Your task to perform on an android device: turn off sleep mode Image 0: 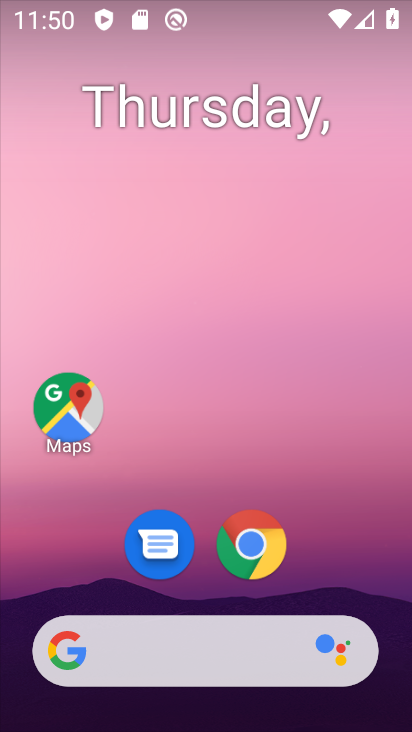
Step 0: drag from (183, 580) to (201, 16)
Your task to perform on an android device: turn off sleep mode Image 1: 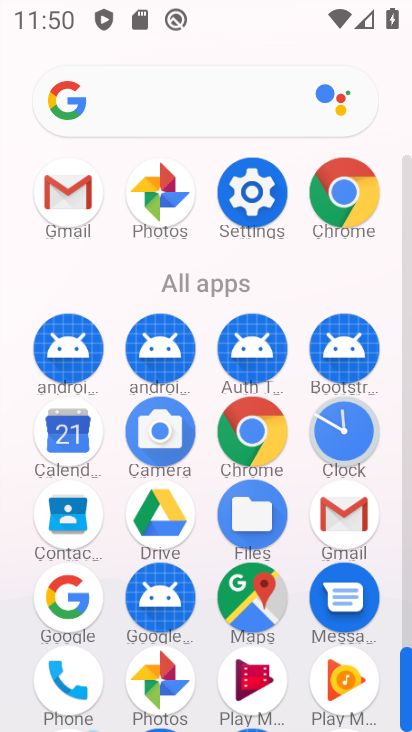
Step 1: click (249, 170)
Your task to perform on an android device: turn off sleep mode Image 2: 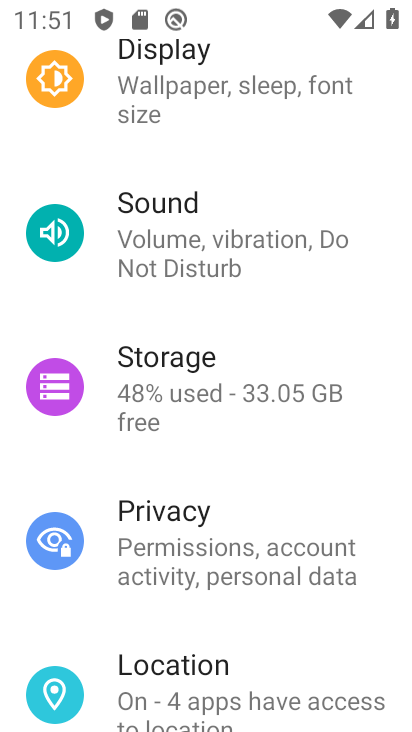
Step 2: click (164, 124)
Your task to perform on an android device: turn off sleep mode Image 3: 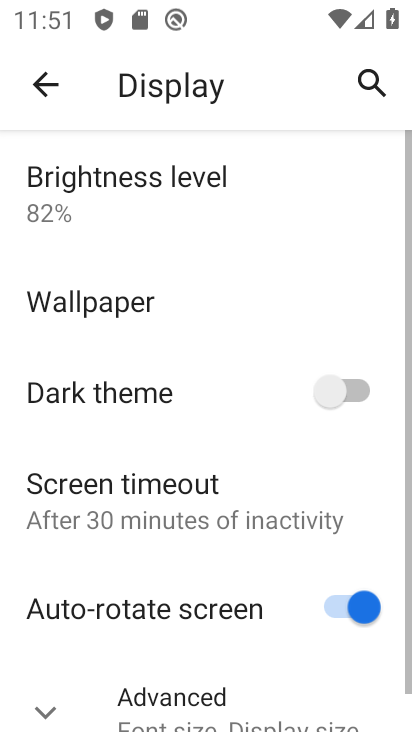
Step 3: drag from (145, 506) to (121, 146)
Your task to perform on an android device: turn off sleep mode Image 4: 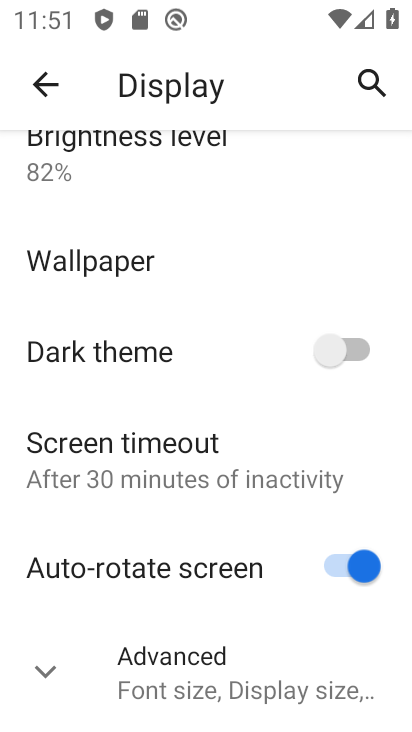
Step 4: click (111, 646)
Your task to perform on an android device: turn off sleep mode Image 5: 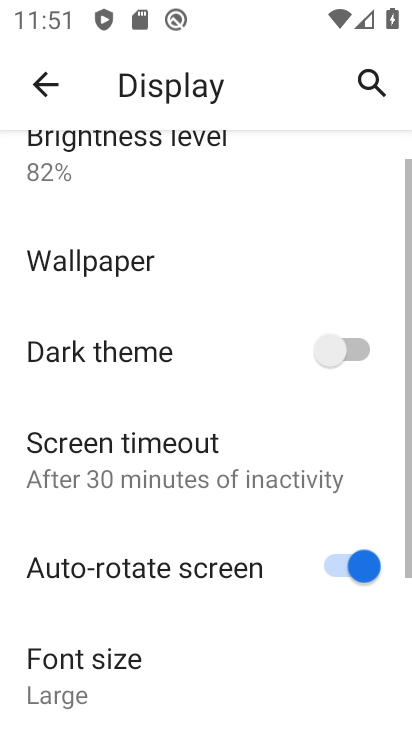
Step 5: task complete